Your task to perform on an android device: Open maps Image 0: 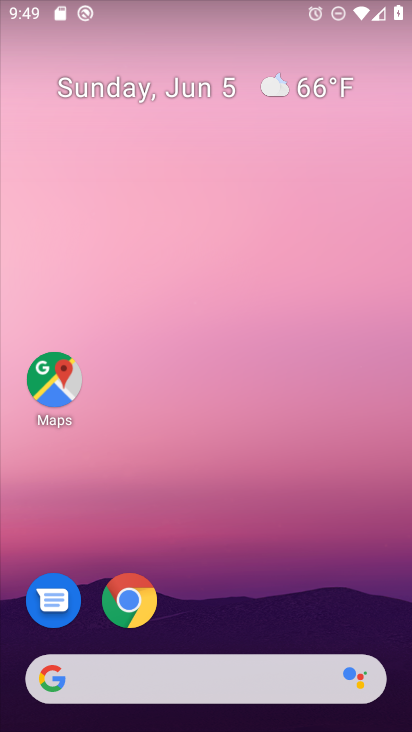
Step 0: drag from (323, 620) to (220, 64)
Your task to perform on an android device: Open maps Image 1: 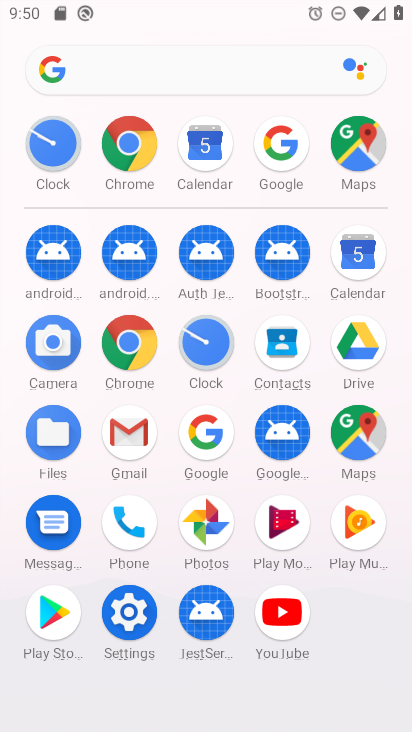
Step 1: click (361, 421)
Your task to perform on an android device: Open maps Image 2: 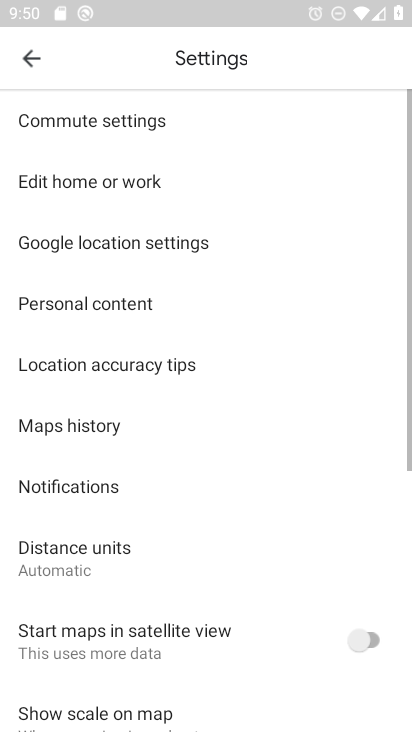
Step 2: task complete